Your task to perform on an android device: Search for Mexican restaurants on Maps Image 0: 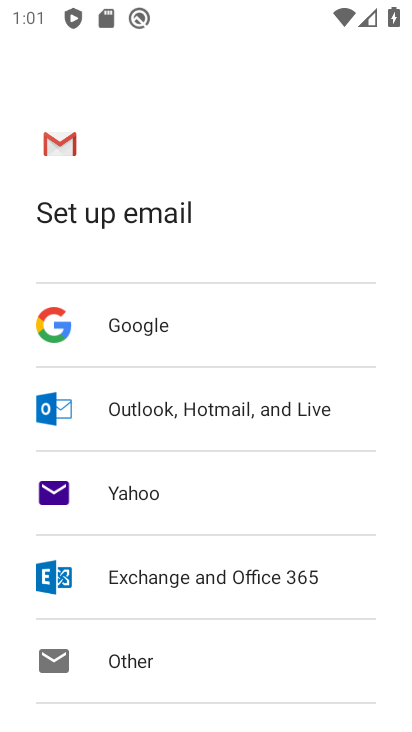
Step 0: press home button
Your task to perform on an android device: Search for Mexican restaurants on Maps Image 1: 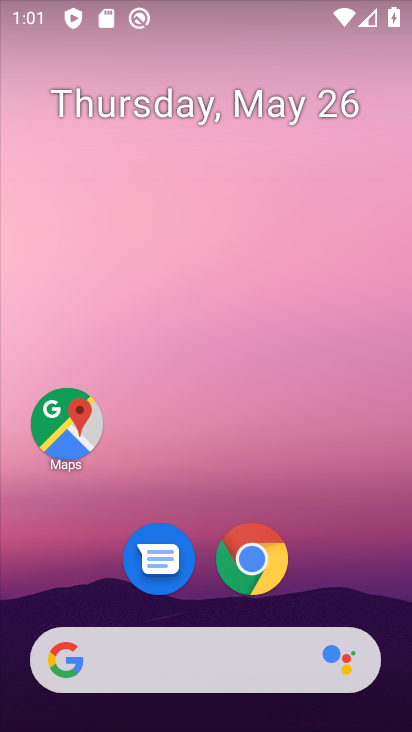
Step 1: click (59, 440)
Your task to perform on an android device: Search for Mexican restaurants on Maps Image 2: 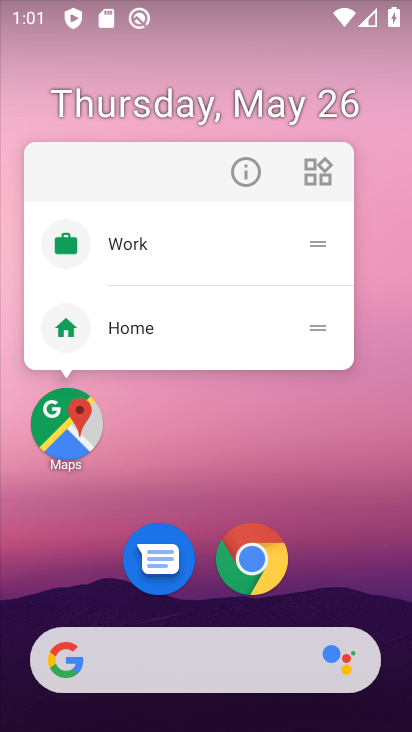
Step 2: click (72, 443)
Your task to perform on an android device: Search for Mexican restaurants on Maps Image 3: 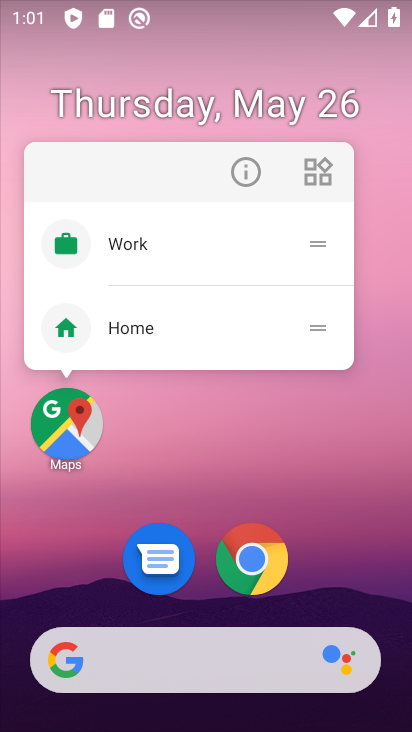
Step 3: click (63, 440)
Your task to perform on an android device: Search for Mexican restaurants on Maps Image 4: 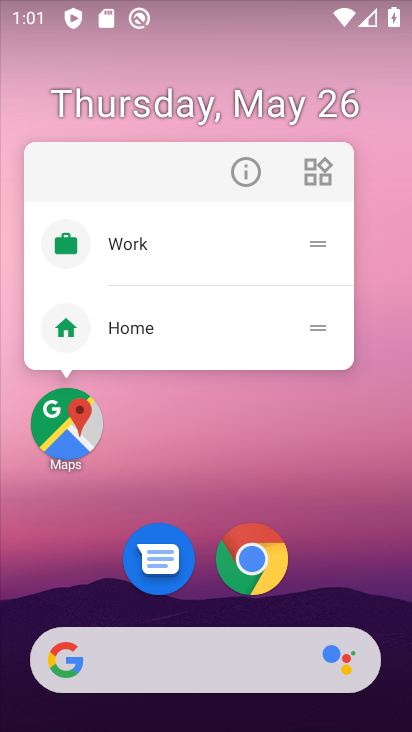
Step 4: click (61, 428)
Your task to perform on an android device: Search for Mexican restaurants on Maps Image 5: 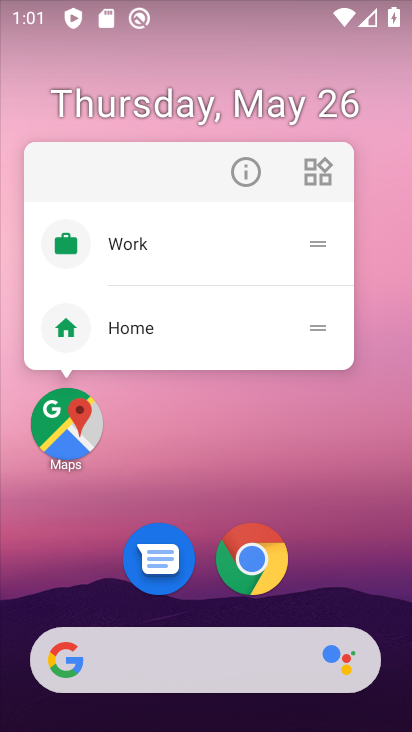
Step 5: click (68, 419)
Your task to perform on an android device: Search for Mexican restaurants on Maps Image 6: 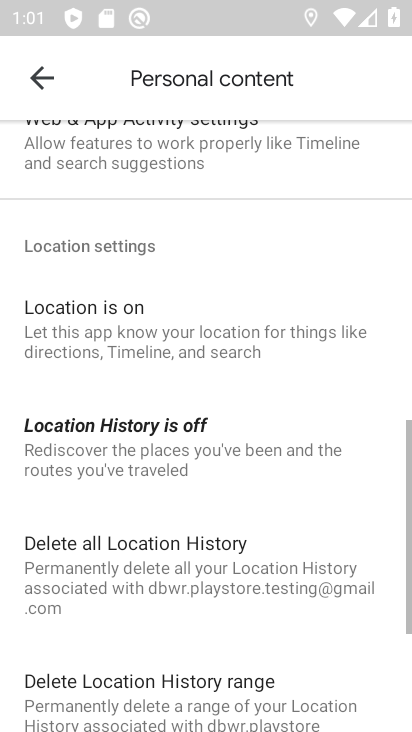
Step 6: click (46, 71)
Your task to perform on an android device: Search for Mexican restaurants on Maps Image 7: 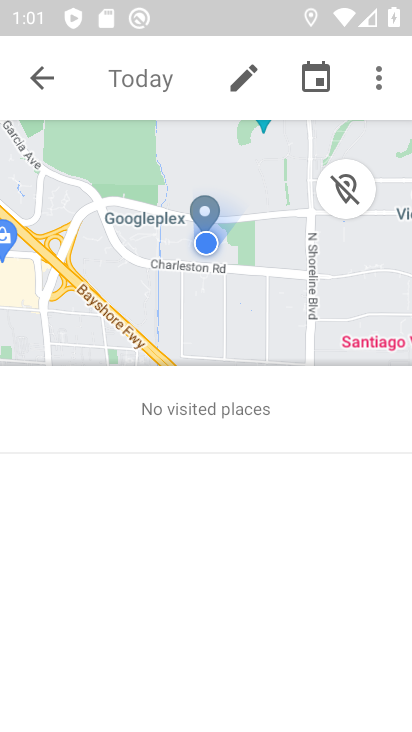
Step 7: click (46, 73)
Your task to perform on an android device: Search for Mexican restaurants on Maps Image 8: 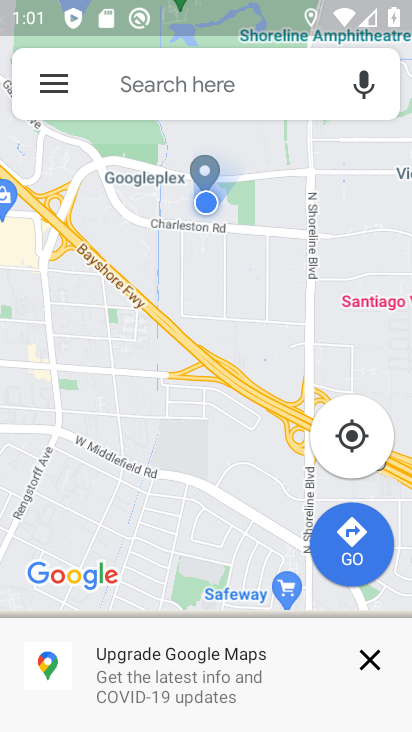
Step 8: click (160, 75)
Your task to perform on an android device: Search for Mexican restaurants on Maps Image 9: 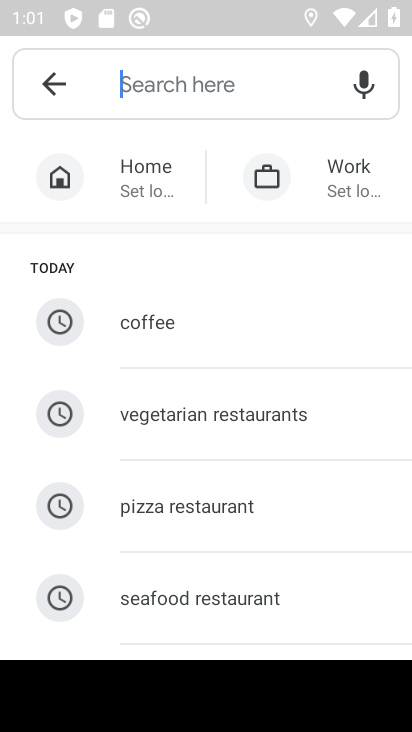
Step 9: drag from (174, 582) to (311, 264)
Your task to perform on an android device: Search for Mexican restaurants on Maps Image 10: 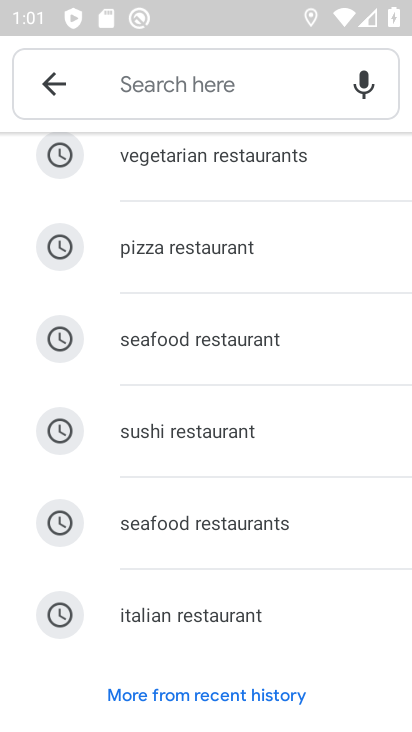
Step 10: drag from (305, 283) to (311, 546)
Your task to perform on an android device: Search for Mexican restaurants on Maps Image 11: 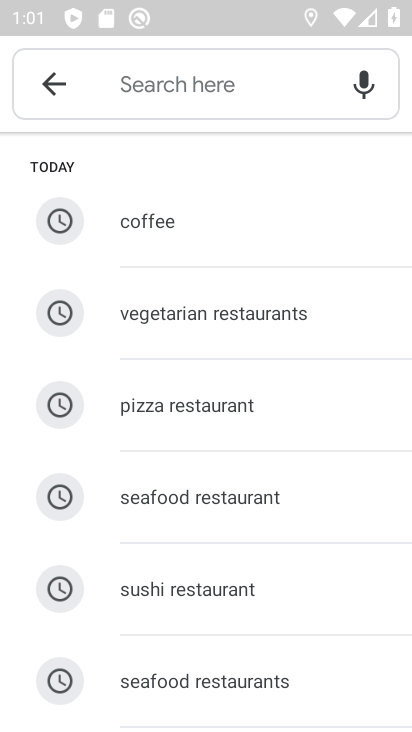
Step 11: drag from (305, 308) to (371, 222)
Your task to perform on an android device: Search for Mexican restaurants on Maps Image 12: 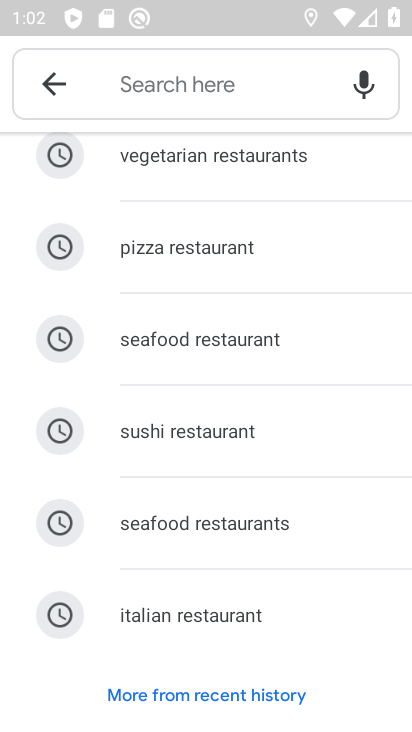
Step 12: click (201, 76)
Your task to perform on an android device: Search for Mexican restaurants on Maps Image 13: 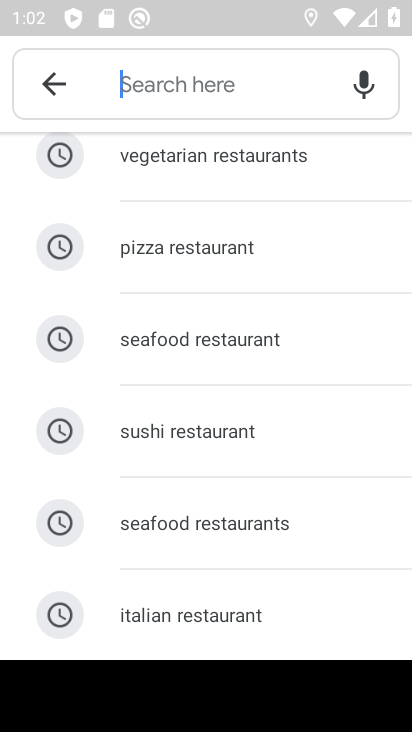
Step 13: type "mexican"
Your task to perform on an android device: Search for Mexican restaurants on Maps Image 14: 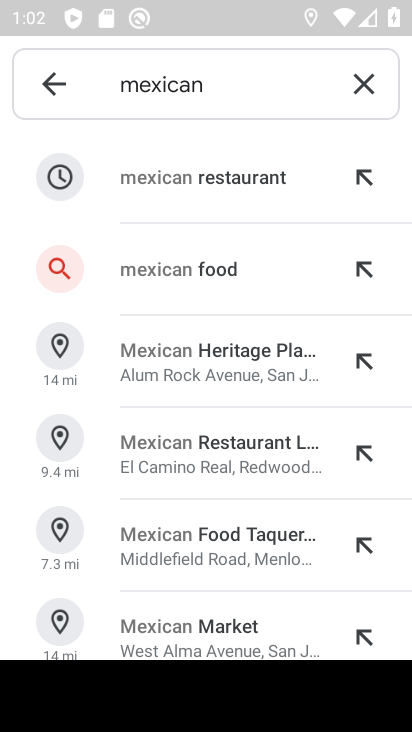
Step 14: click (198, 182)
Your task to perform on an android device: Search for Mexican restaurants on Maps Image 15: 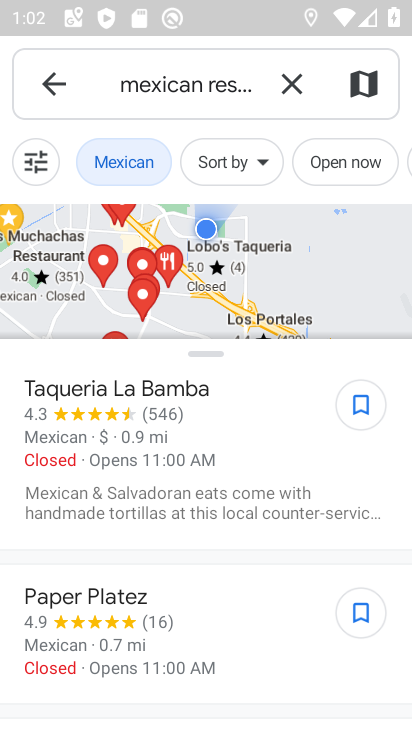
Step 15: task complete